Your task to perform on an android device: Go to display settings Image 0: 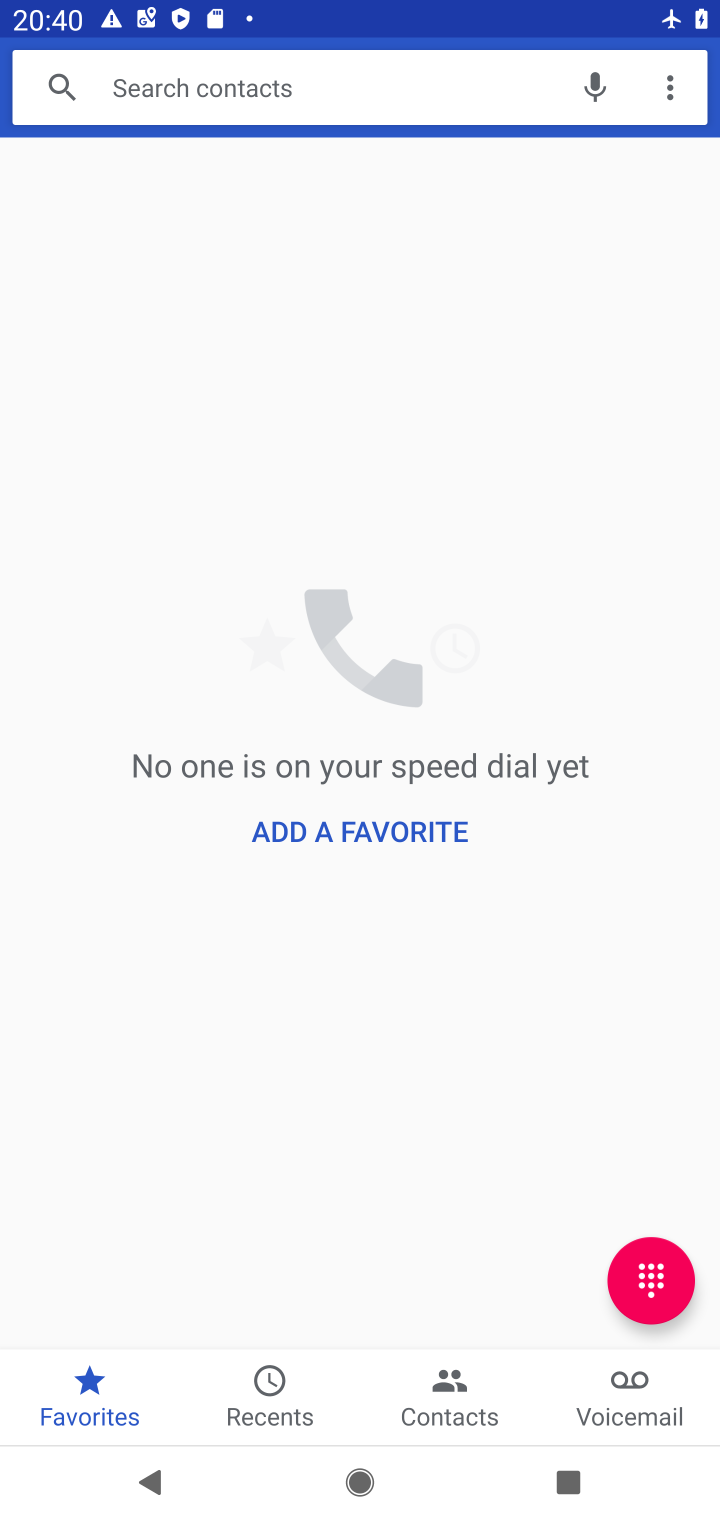
Step 0: press home button
Your task to perform on an android device: Go to display settings Image 1: 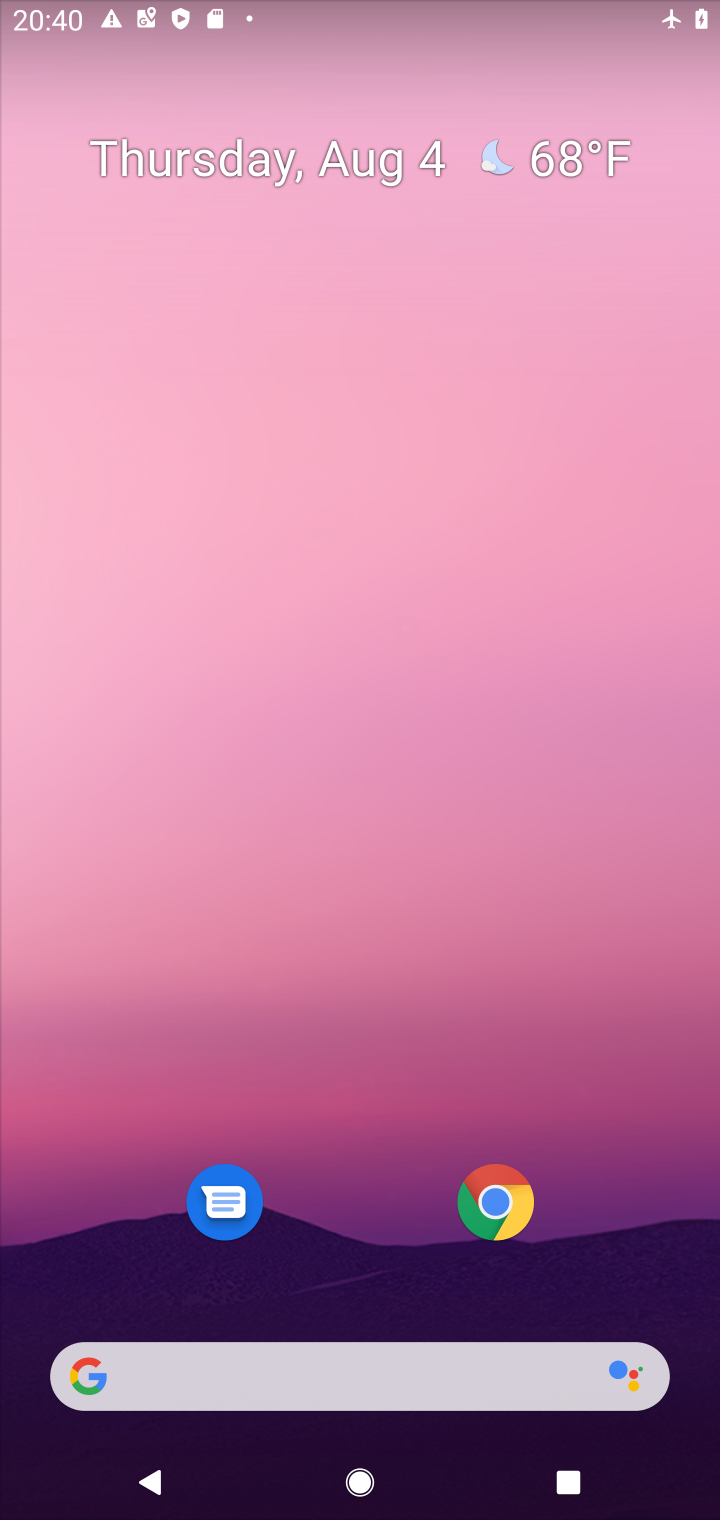
Step 1: drag from (339, 1216) to (292, 324)
Your task to perform on an android device: Go to display settings Image 2: 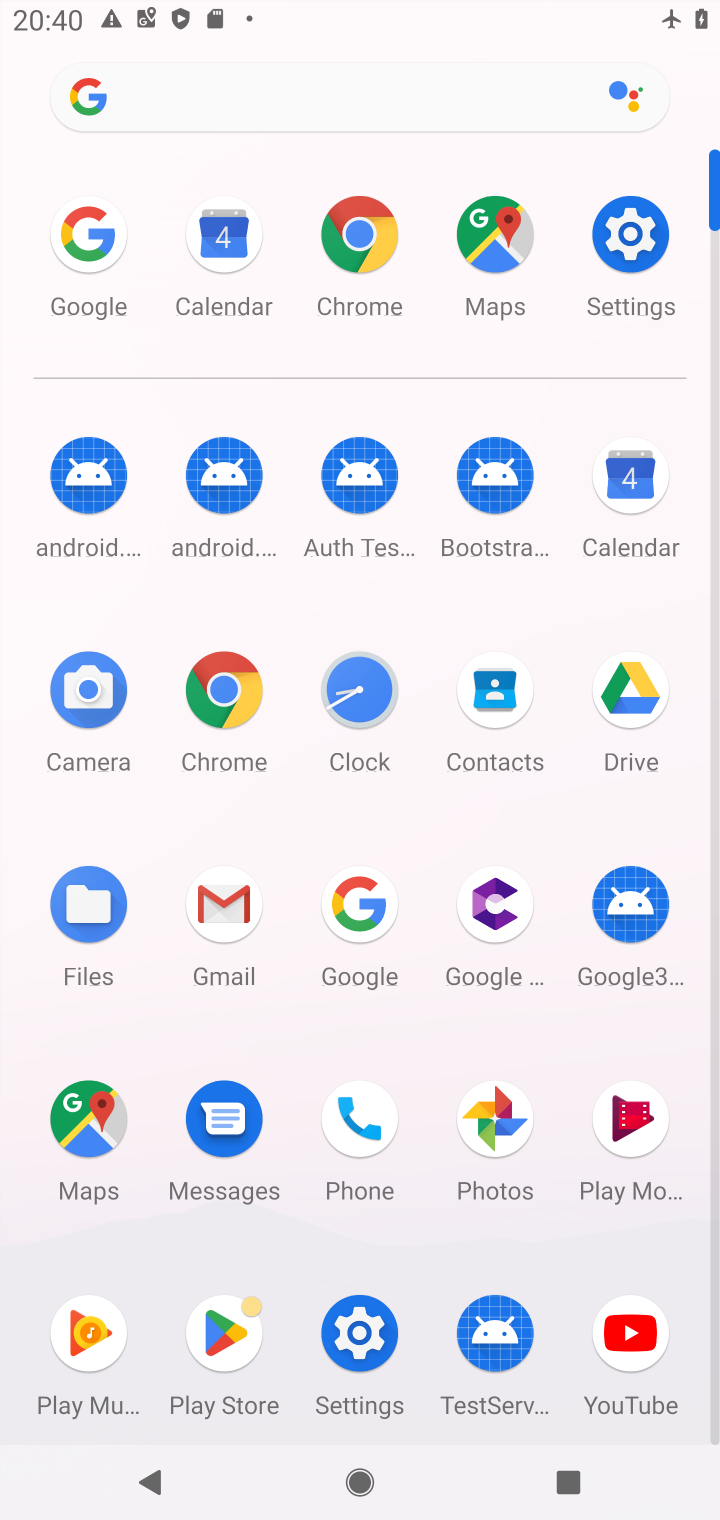
Step 2: click (639, 229)
Your task to perform on an android device: Go to display settings Image 3: 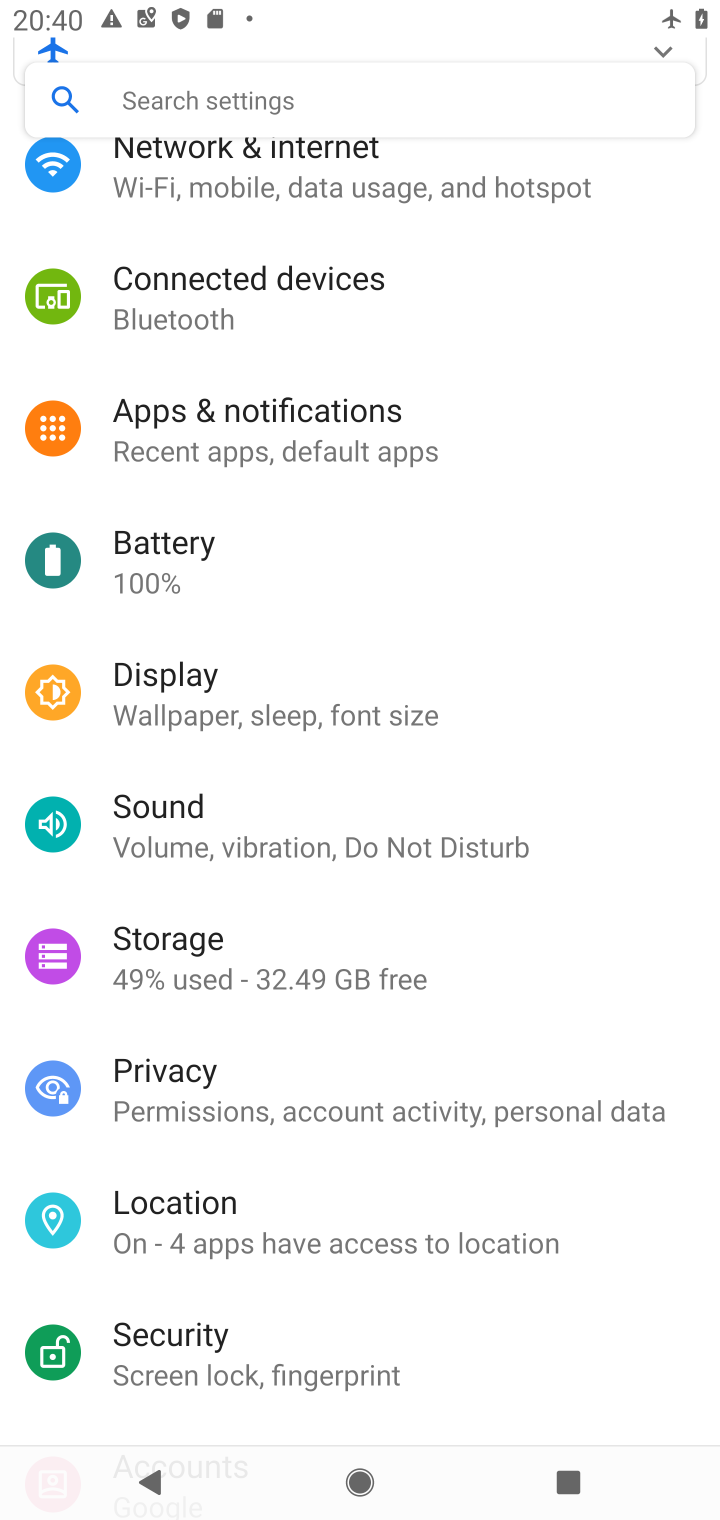
Step 3: click (203, 685)
Your task to perform on an android device: Go to display settings Image 4: 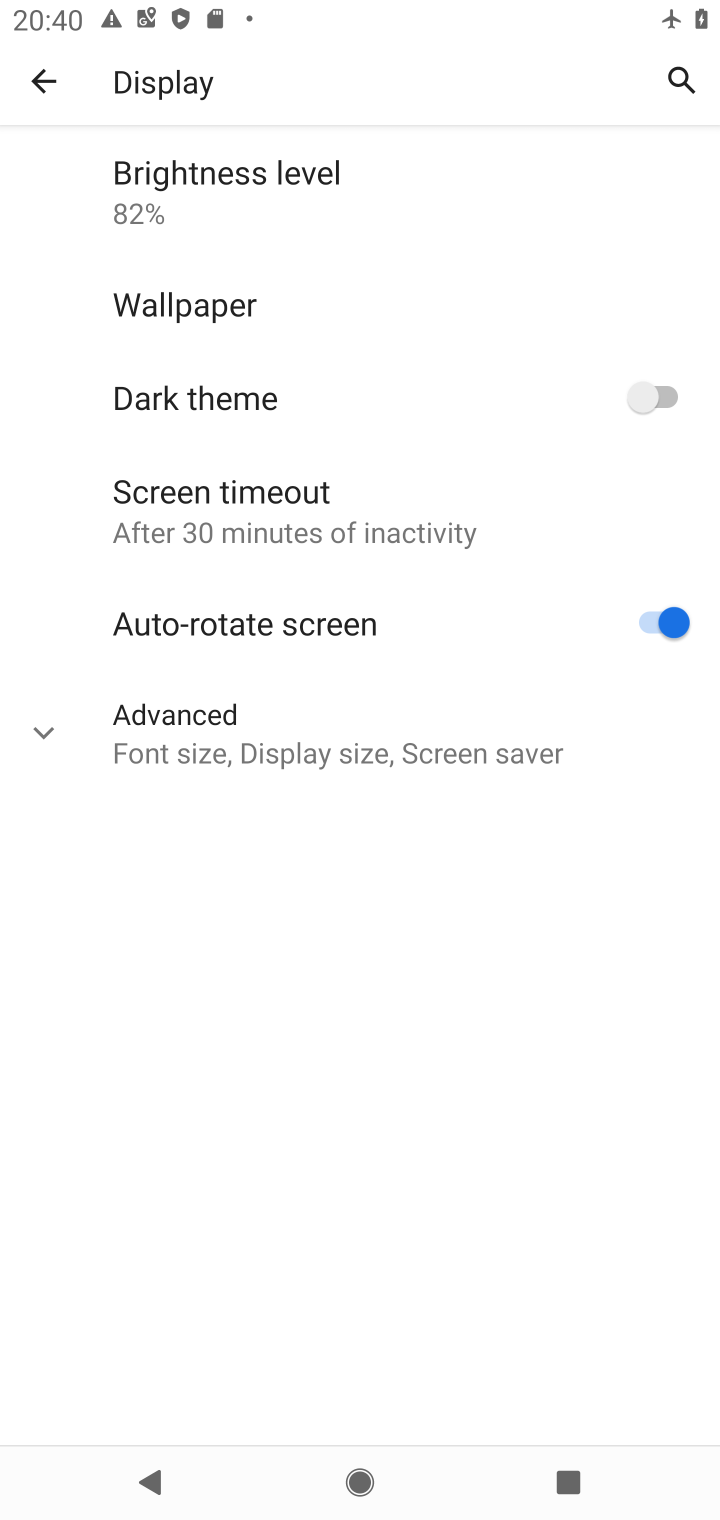
Step 4: task complete